Your task to perform on an android device: Go to notification settings Image 0: 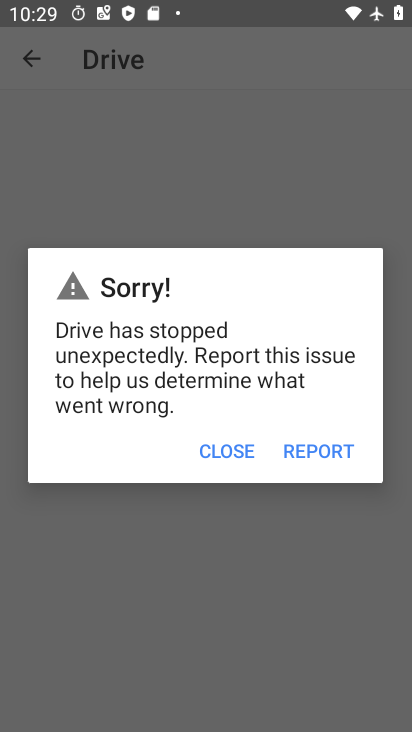
Step 0: press home button
Your task to perform on an android device: Go to notification settings Image 1: 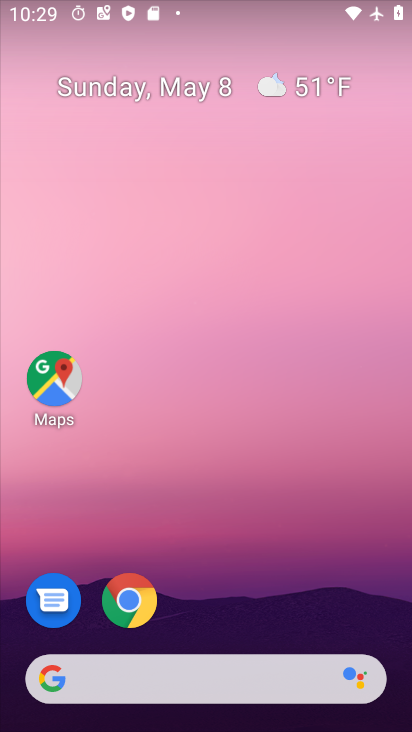
Step 1: drag from (230, 541) to (188, 24)
Your task to perform on an android device: Go to notification settings Image 2: 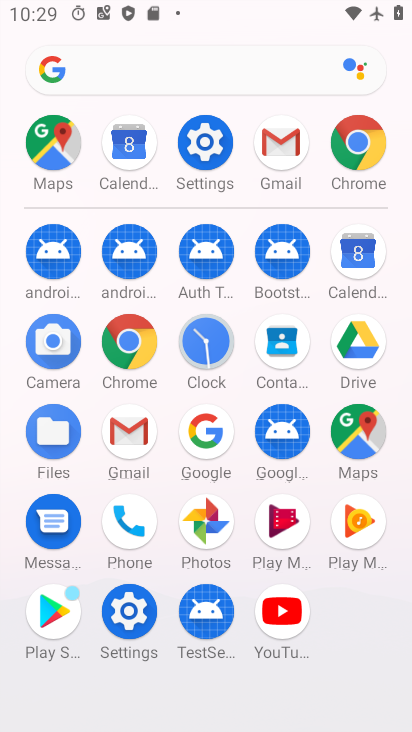
Step 2: drag from (13, 607) to (0, 313)
Your task to perform on an android device: Go to notification settings Image 3: 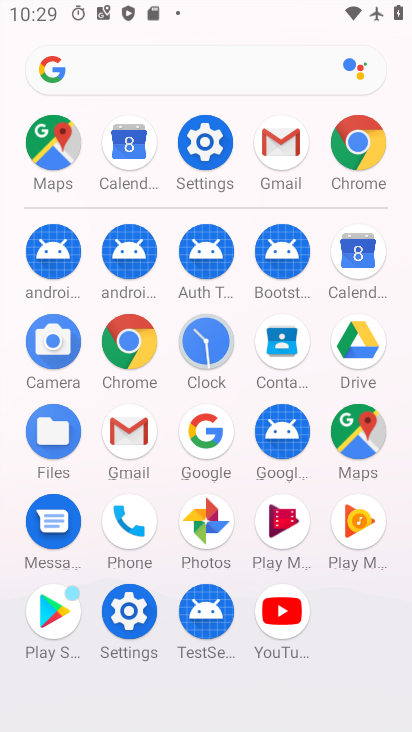
Step 3: click (127, 610)
Your task to perform on an android device: Go to notification settings Image 4: 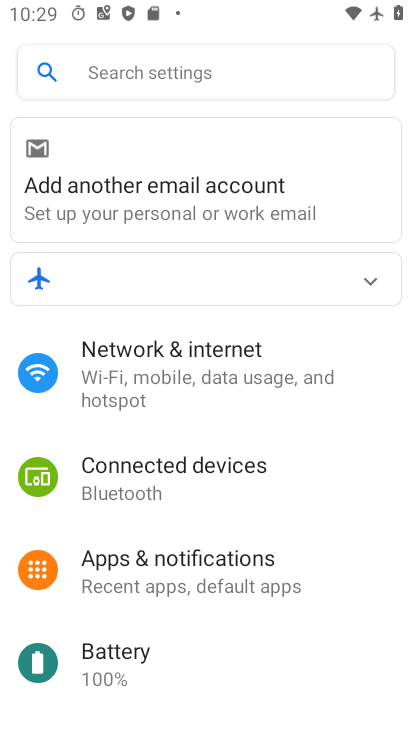
Step 4: drag from (275, 583) to (246, 167)
Your task to perform on an android device: Go to notification settings Image 5: 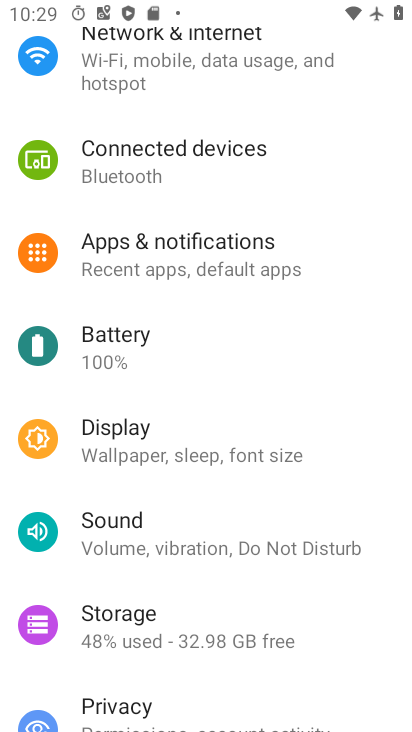
Step 5: click (180, 248)
Your task to perform on an android device: Go to notification settings Image 6: 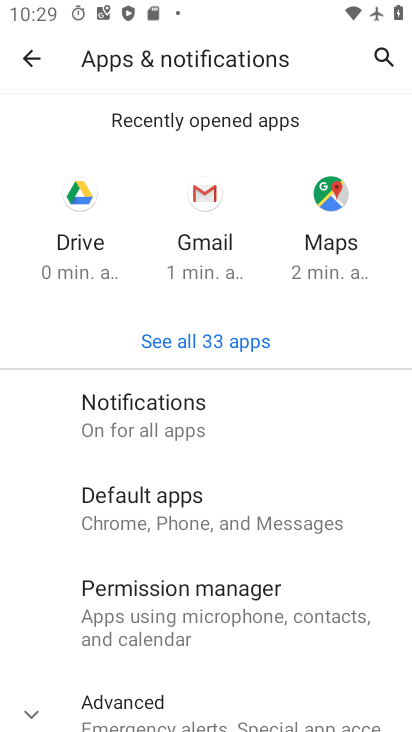
Step 6: click (49, 705)
Your task to perform on an android device: Go to notification settings Image 7: 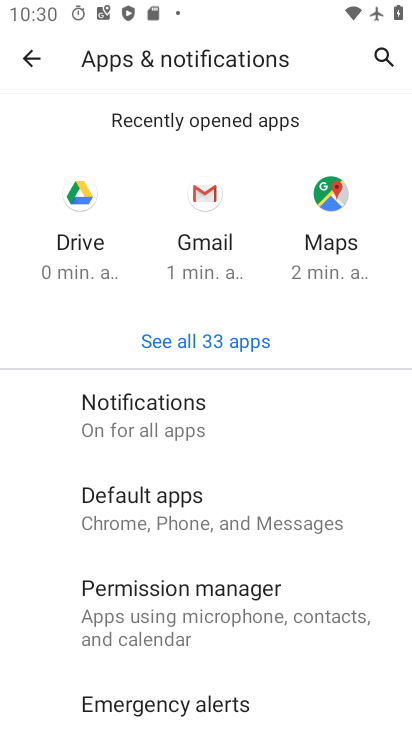
Step 7: click (222, 411)
Your task to perform on an android device: Go to notification settings Image 8: 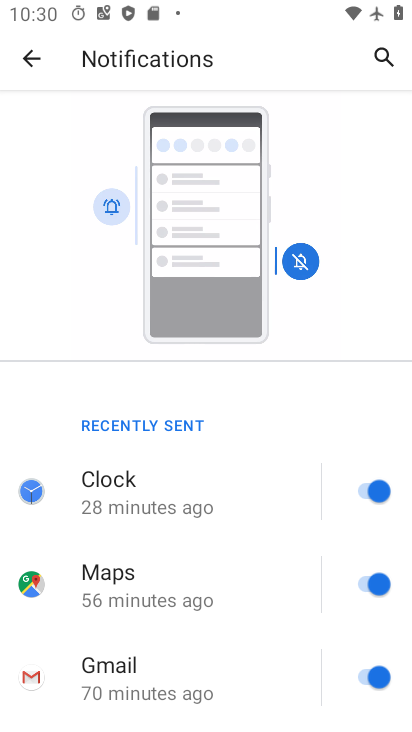
Step 8: drag from (231, 632) to (213, 174)
Your task to perform on an android device: Go to notification settings Image 9: 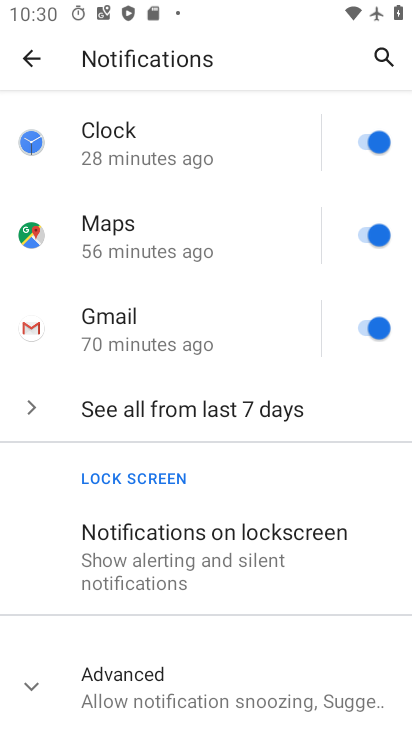
Step 9: drag from (191, 564) to (202, 206)
Your task to perform on an android device: Go to notification settings Image 10: 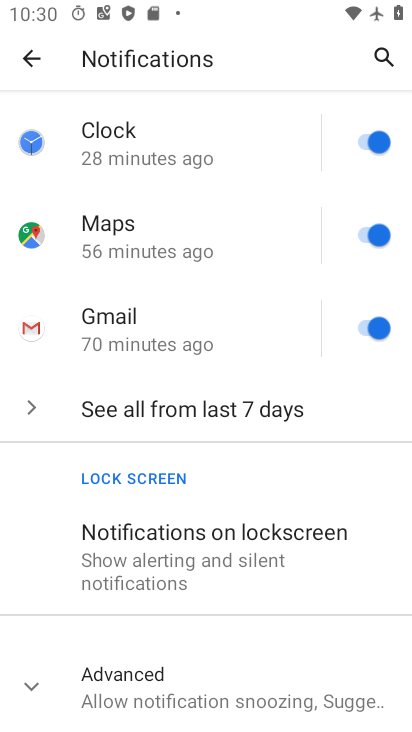
Step 10: click (40, 674)
Your task to perform on an android device: Go to notification settings Image 11: 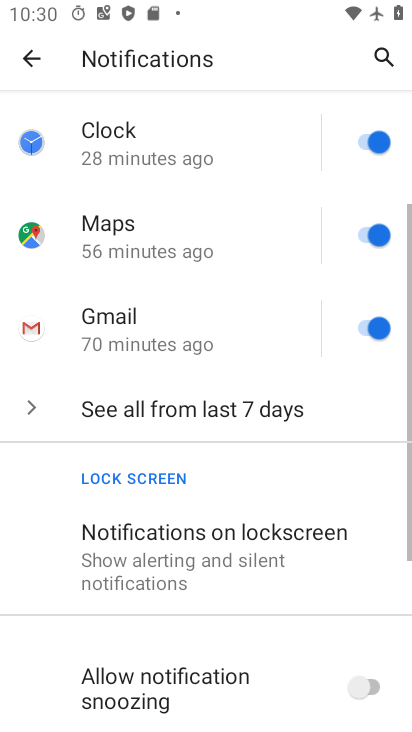
Step 11: task complete